Your task to perform on an android device: change the clock display to analog Image 0: 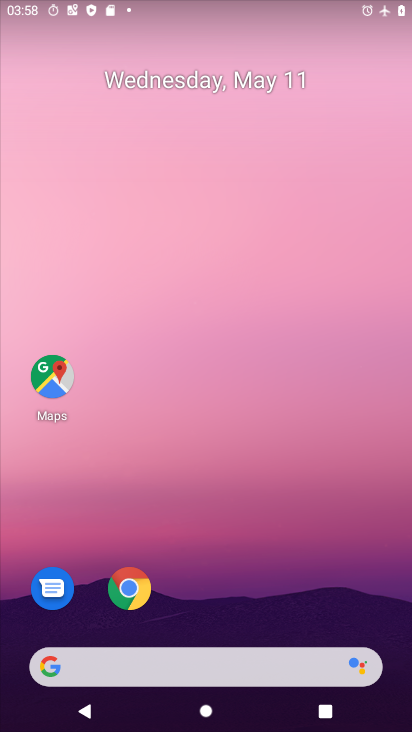
Step 0: drag from (243, 612) to (244, 269)
Your task to perform on an android device: change the clock display to analog Image 1: 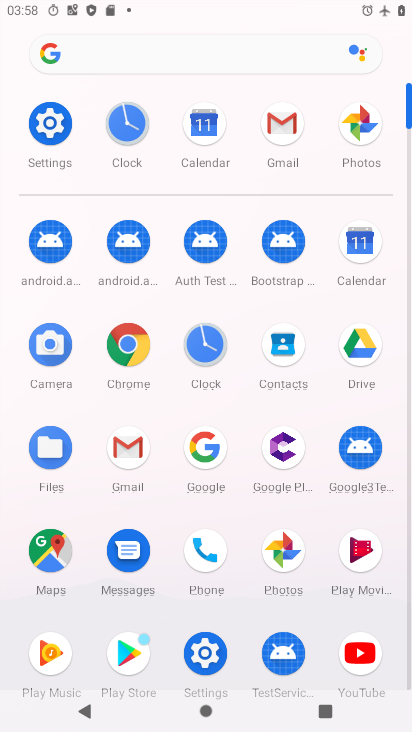
Step 1: click (146, 131)
Your task to perform on an android device: change the clock display to analog Image 2: 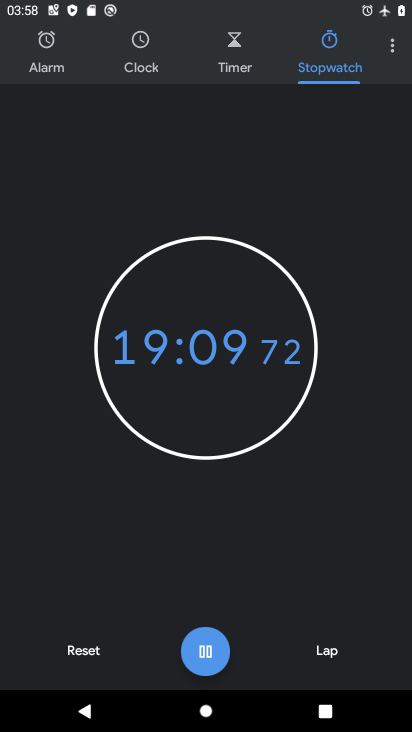
Step 2: click (385, 54)
Your task to perform on an android device: change the clock display to analog Image 3: 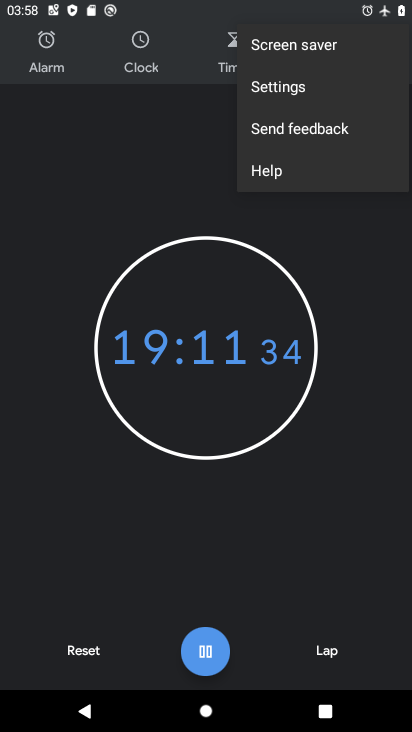
Step 3: click (334, 95)
Your task to perform on an android device: change the clock display to analog Image 4: 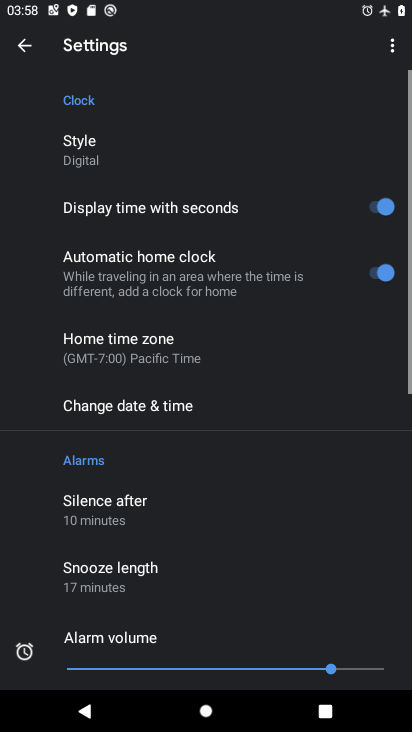
Step 4: click (113, 162)
Your task to perform on an android device: change the clock display to analog Image 5: 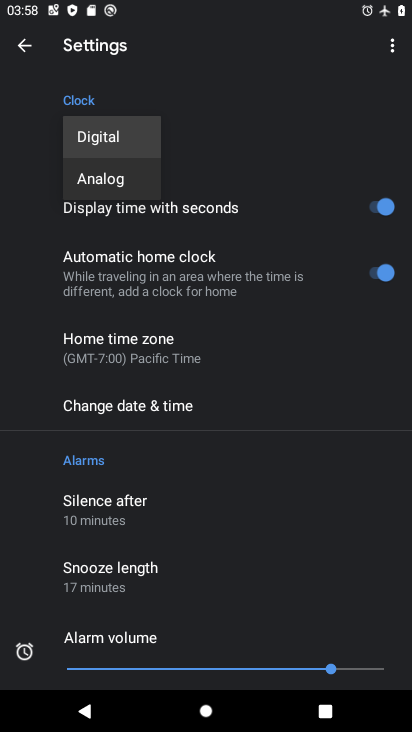
Step 5: click (120, 184)
Your task to perform on an android device: change the clock display to analog Image 6: 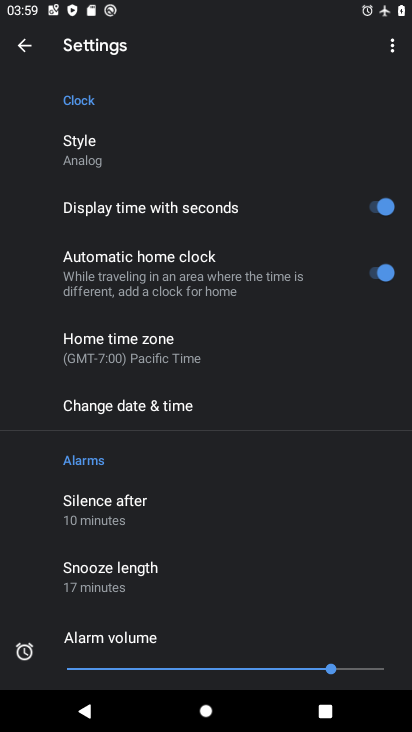
Step 6: task complete